Your task to perform on an android device: Do I have any events tomorrow? Image 0: 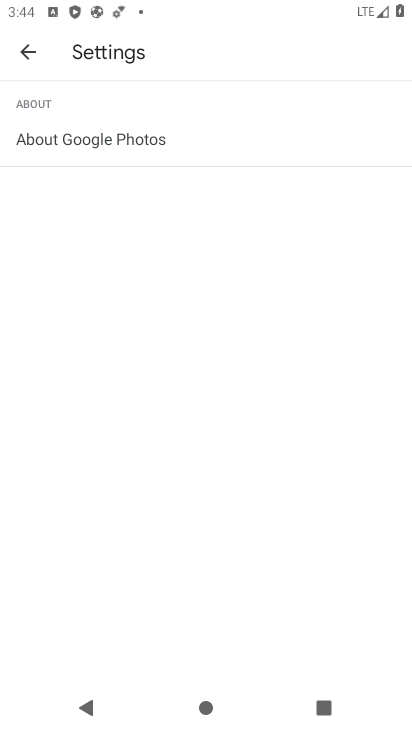
Step 0: press home button
Your task to perform on an android device: Do I have any events tomorrow? Image 1: 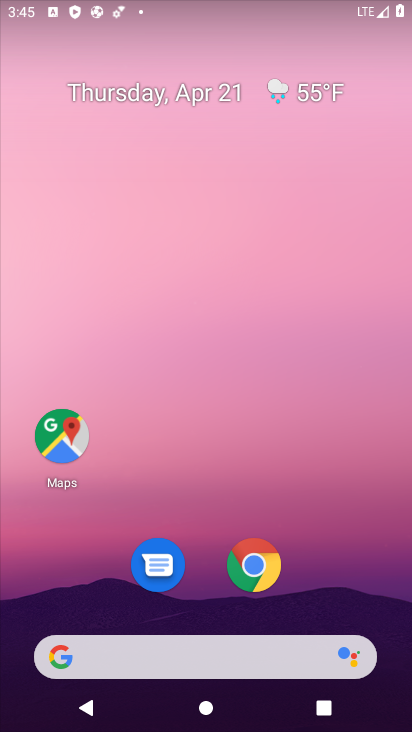
Step 1: drag from (332, 547) to (337, 49)
Your task to perform on an android device: Do I have any events tomorrow? Image 2: 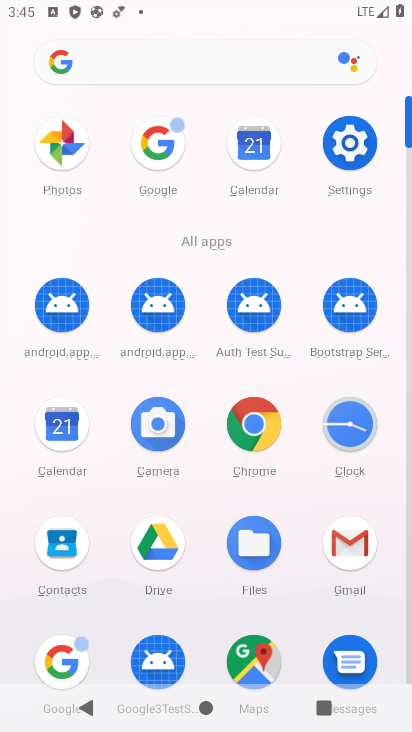
Step 2: click (57, 430)
Your task to perform on an android device: Do I have any events tomorrow? Image 3: 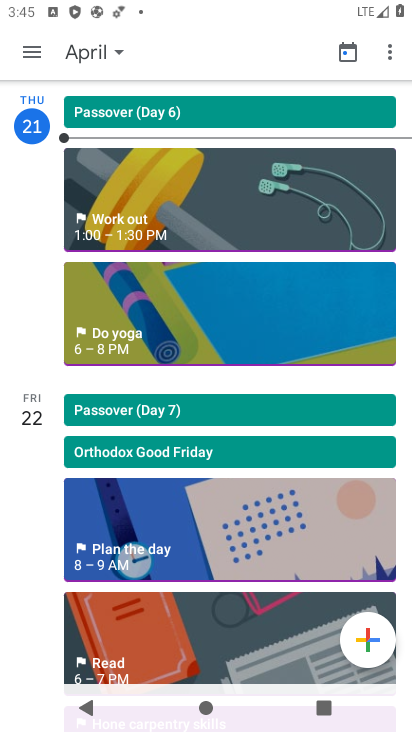
Step 3: task complete